Your task to perform on an android device: toggle translation in the chrome app Image 0: 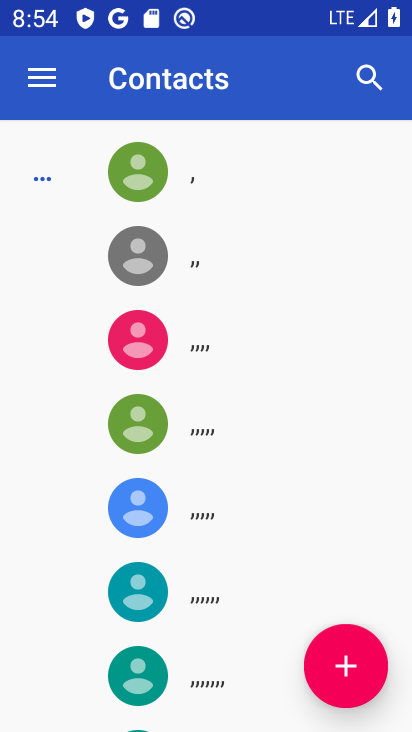
Step 0: press back button
Your task to perform on an android device: toggle translation in the chrome app Image 1: 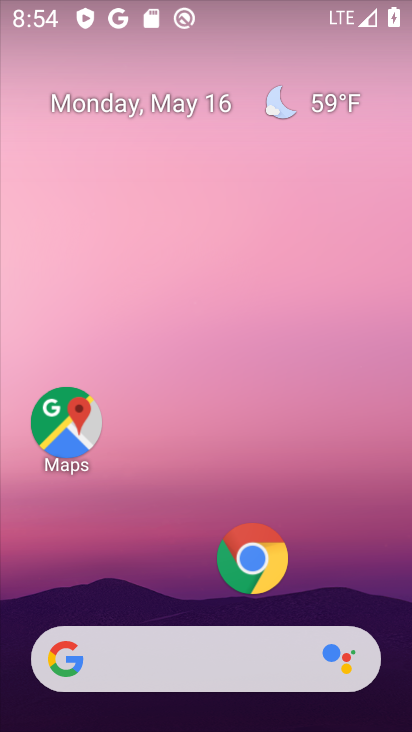
Step 1: click (263, 552)
Your task to perform on an android device: toggle translation in the chrome app Image 2: 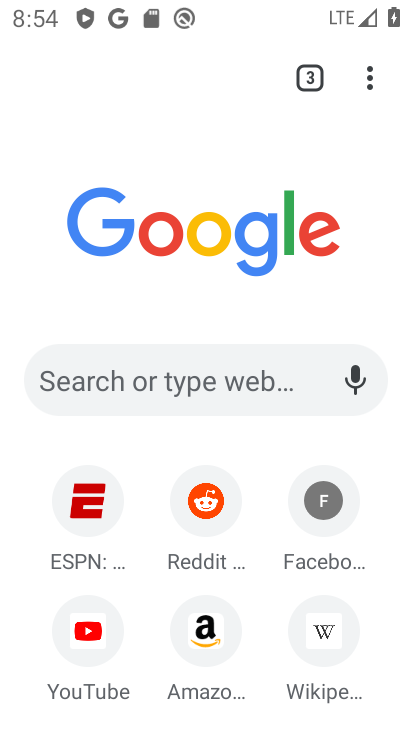
Step 2: click (363, 79)
Your task to perform on an android device: toggle translation in the chrome app Image 3: 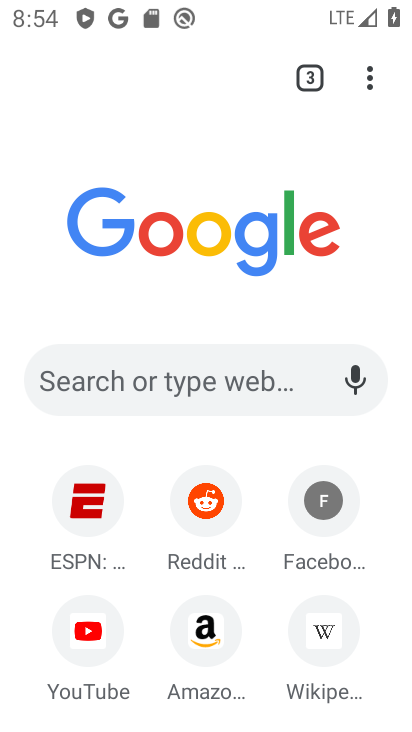
Step 3: drag from (364, 79) to (81, 619)
Your task to perform on an android device: toggle translation in the chrome app Image 4: 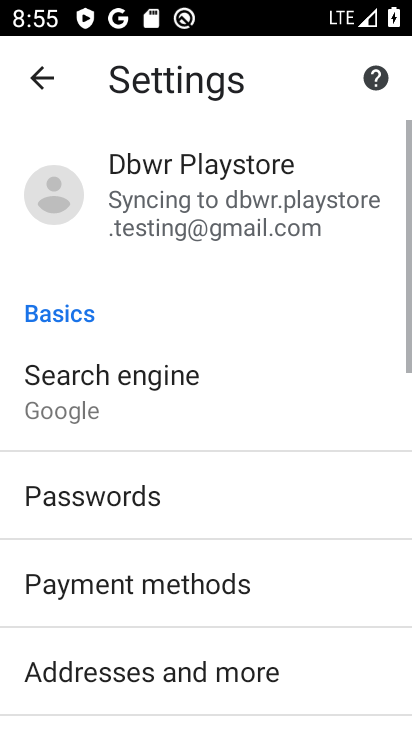
Step 4: drag from (176, 628) to (255, 17)
Your task to perform on an android device: toggle translation in the chrome app Image 5: 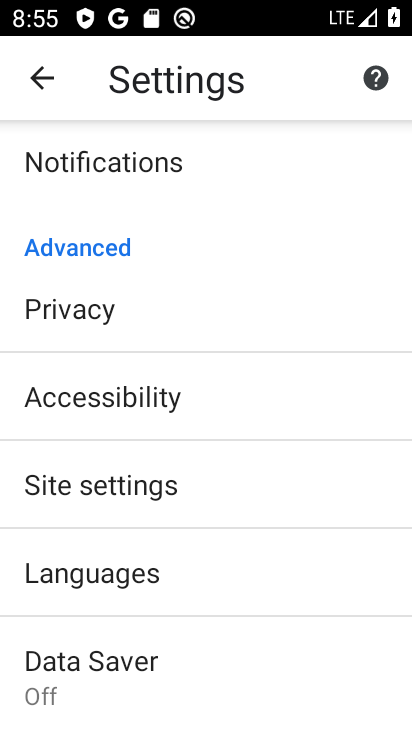
Step 5: click (114, 567)
Your task to perform on an android device: toggle translation in the chrome app Image 6: 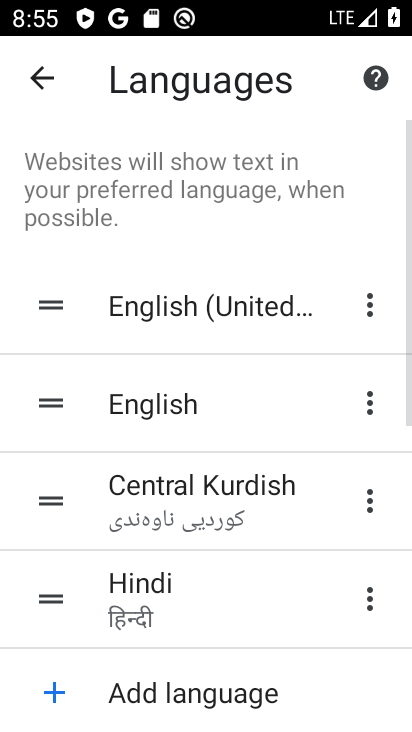
Step 6: drag from (156, 603) to (262, 42)
Your task to perform on an android device: toggle translation in the chrome app Image 7: 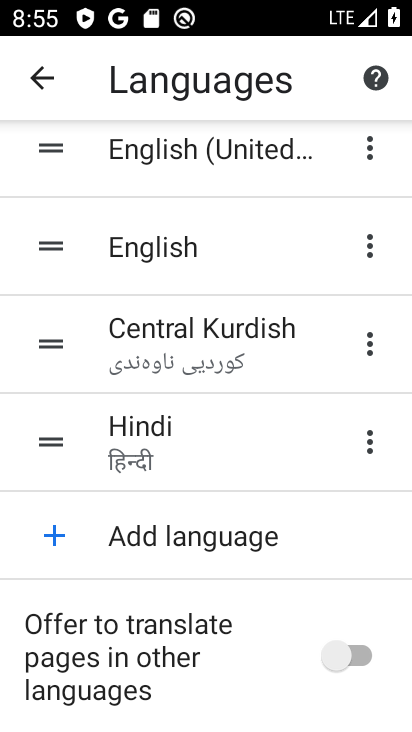
Step 7: click (333, 659)
Your task to perform on an android device: toggle translation in the chrome app Image 8: 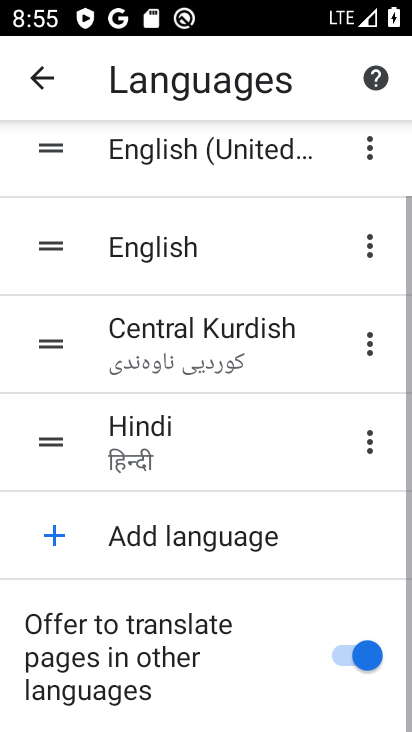
Step 8: task complete